Your task to perform on an android device: What's on my calendar tomorrow? Image 0: 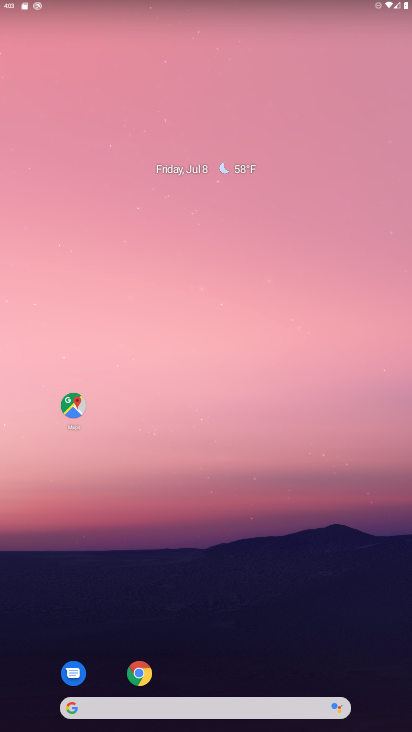
Step 0: drag from (190, 696) to (342, 114)
Your task to perform on an android device: What's on my calendar tomorrow? Image 1: 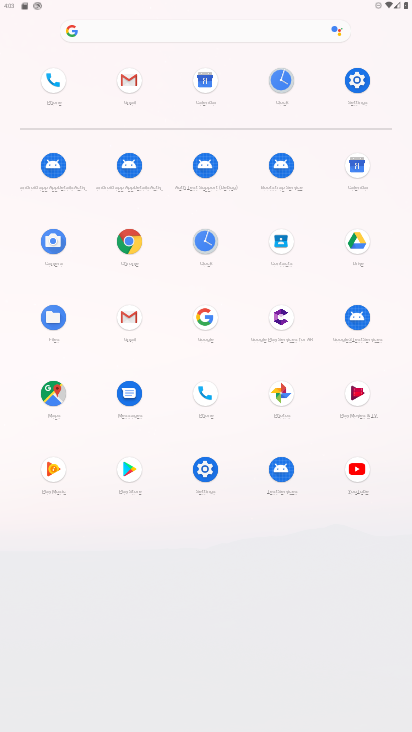
Step 1: click (355, 178)
Your task to perform on an android device: What's on my calendar tomorrow? Image 2: 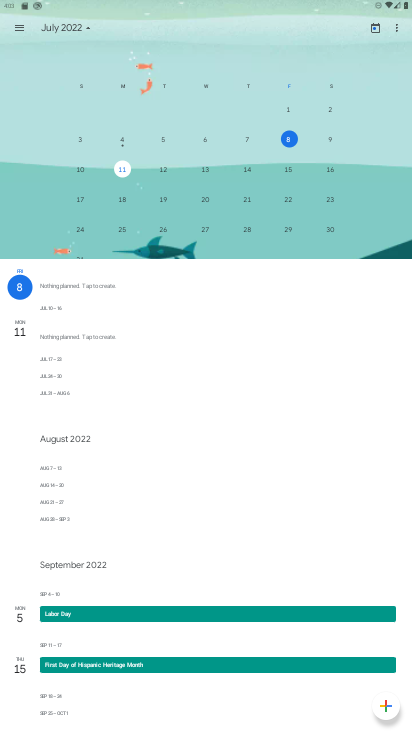
Step 2: click (328, 140)
Your task to perform on an android device: What's on my calendar tomorrow? Image 3: 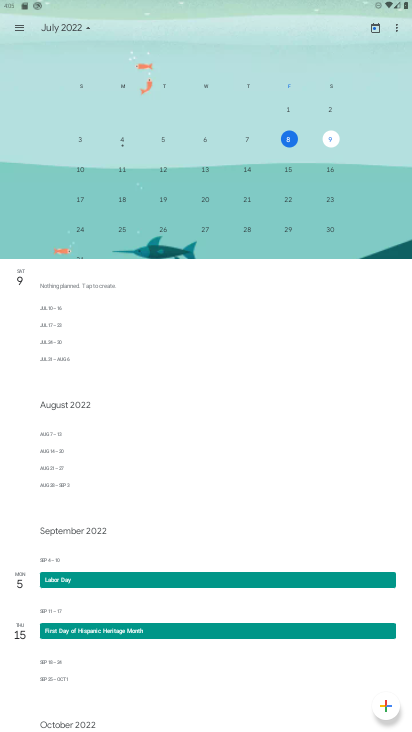
Step 3: task complete